Your task to perform on an android device: Check the news Image 0: 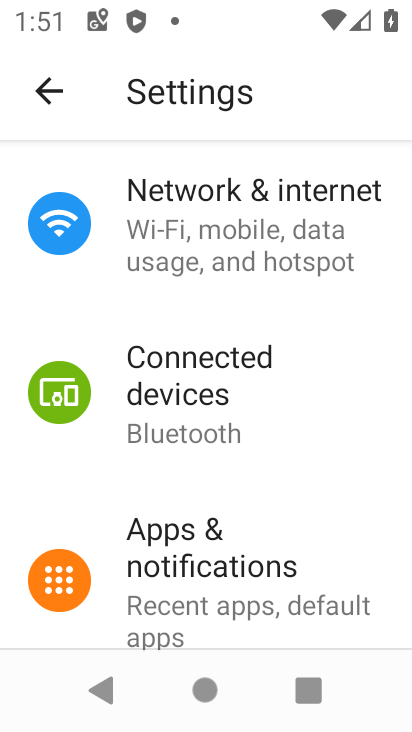
Step 0: press home button
Your task to perform on an android device: Check the news Image 1: 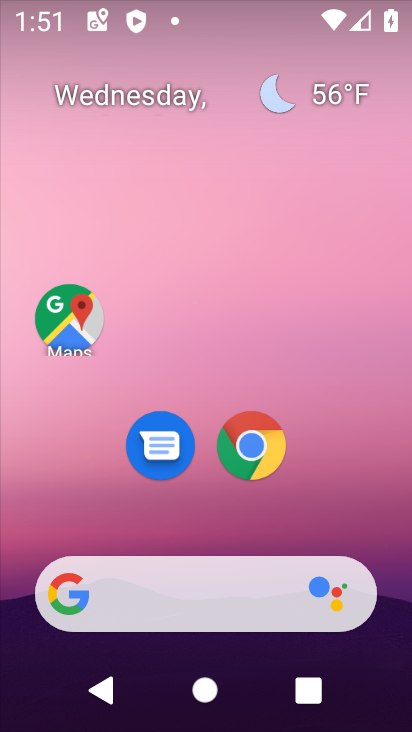
Step 1: click (192, 585)
Your task to perform on an android device: Check the news Image 2: 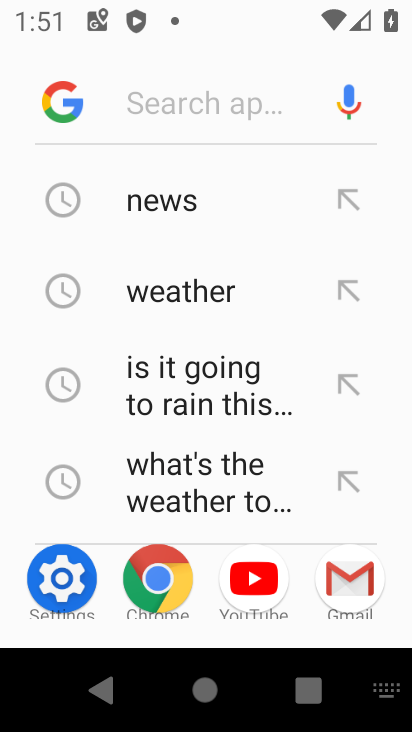
Step 2: click (158, 218)
Your task to perform on an android device: Check the news Image 3: 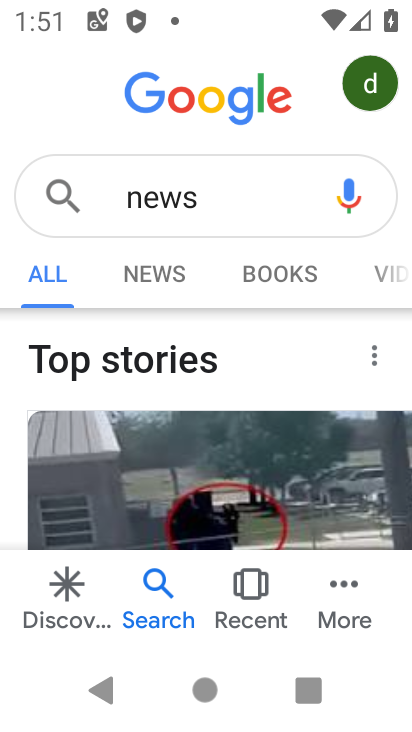
Step 3: click (182, 268)
Your task to perform on an android device: Check the news Image 4: 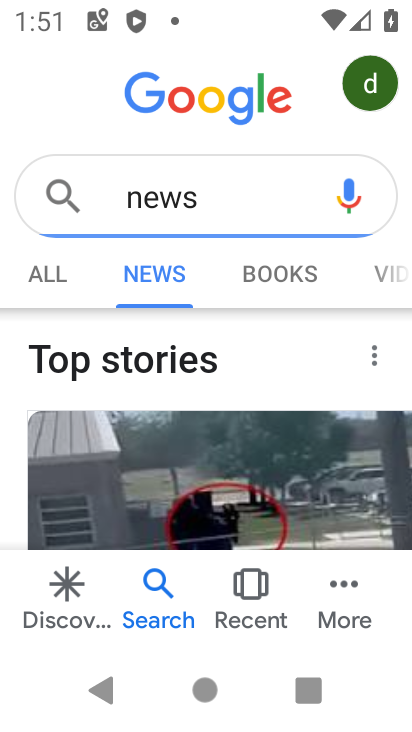
Step 4: task complete